Your task to perform on an android device: Set the phone to "Do not disturb". Image 0: 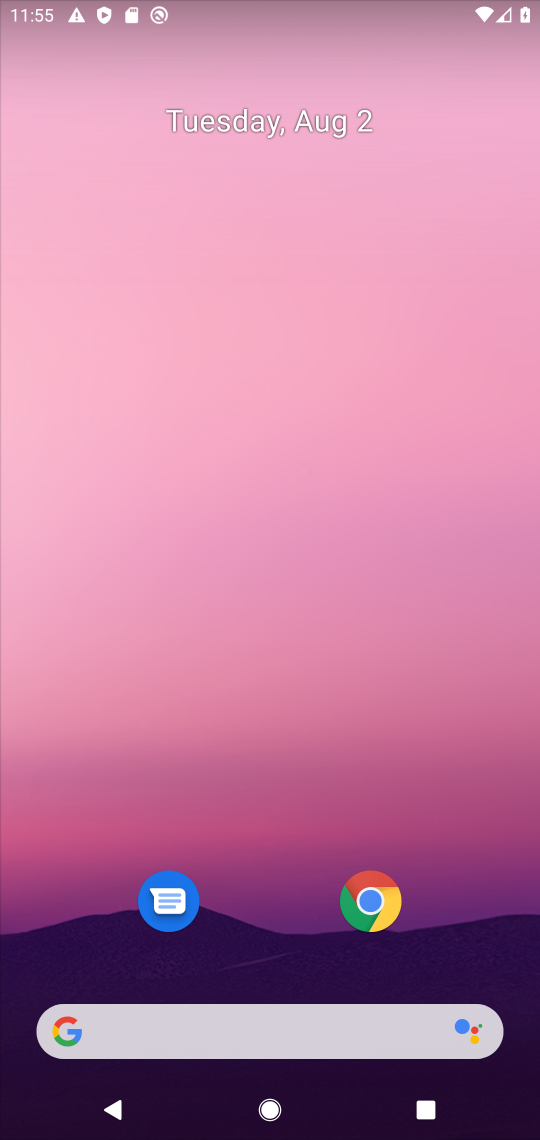
Step 0: drag from (509, 1113) to (349, 162)
Your task to perform on an android device: Set the phone to "Do not disturb". Image 1: 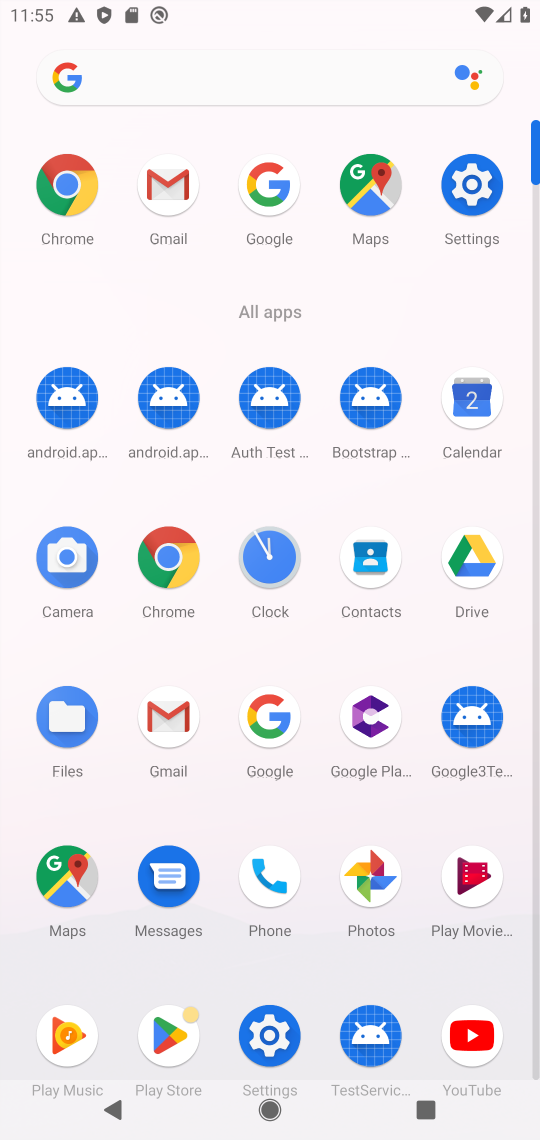
Step 1: click (464, 187)
Your task to perform on an android device: Set the phone to "Do not disturb". Image 2: 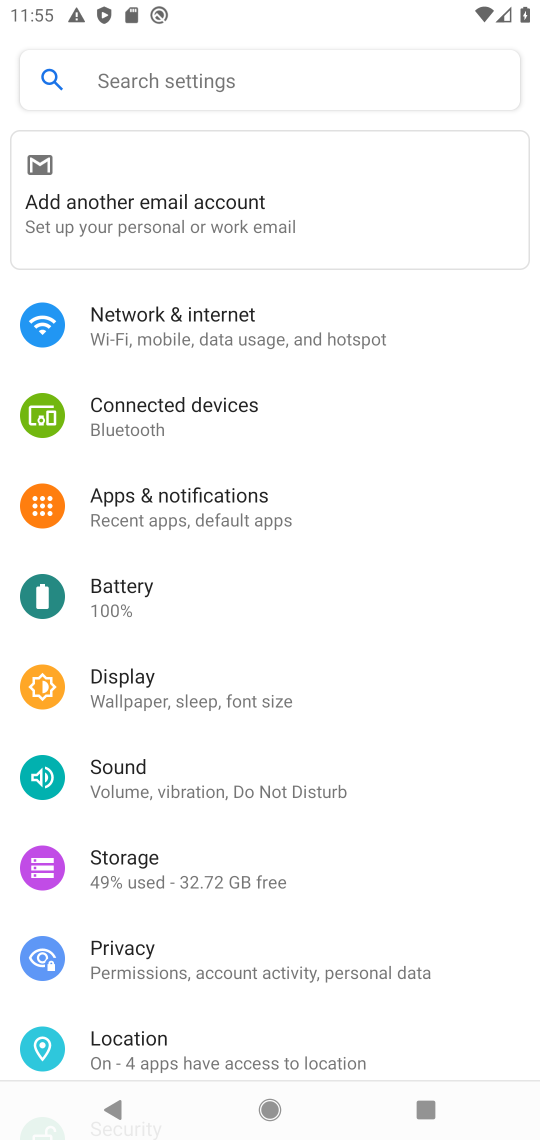
Step 2: click (104, 769)
Your task to perform on an android device: Set the phone to "Do not disturb". Image 3: 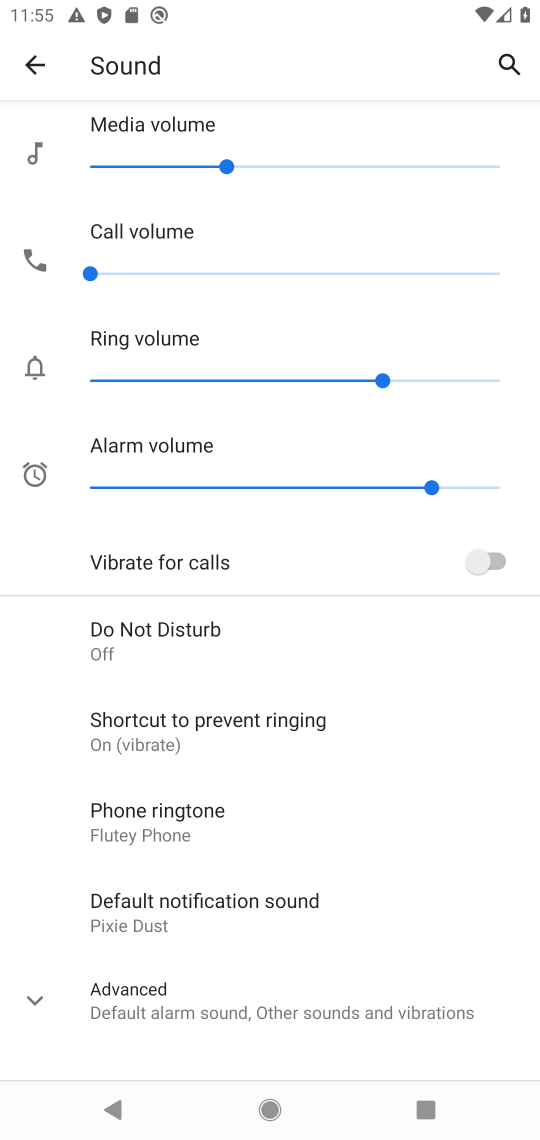
Step 3: click (146, 640)
Your task to perform on an android device: Set the phone to "Do not disturb". Image 4: 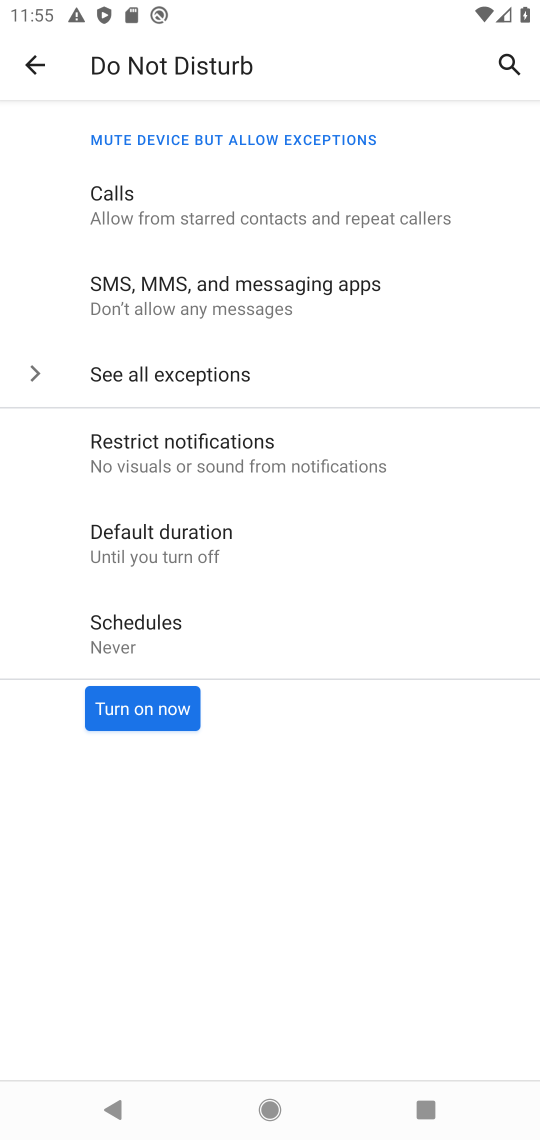
Step 4: click (186, 711)
Your task to perform on an android device: Set the phone to "Do not disturb". Image 5: 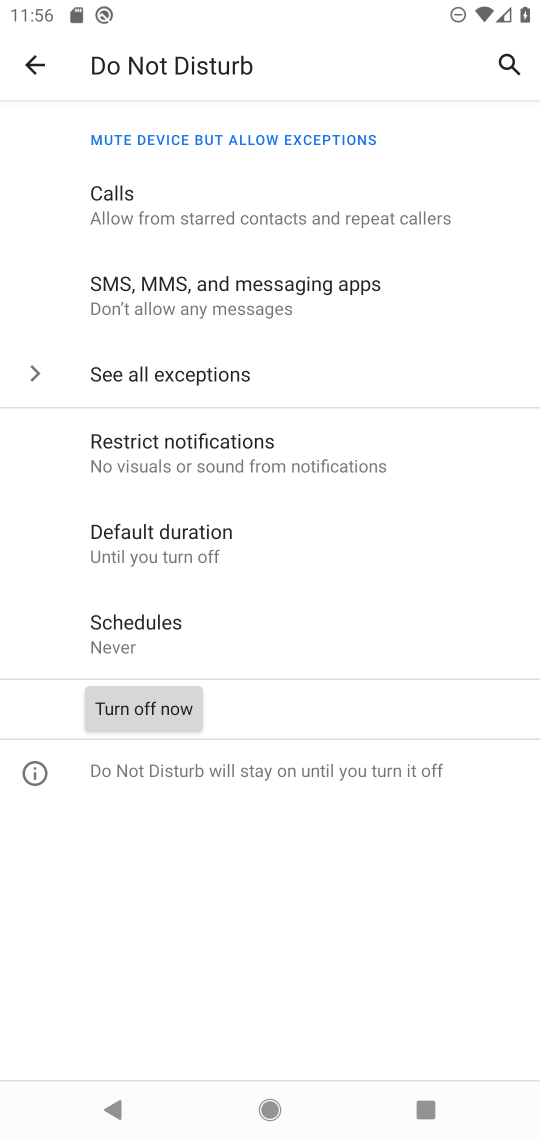
Step 5: task complete